Your task to perform on an android device: Open privacy settings Image 0: 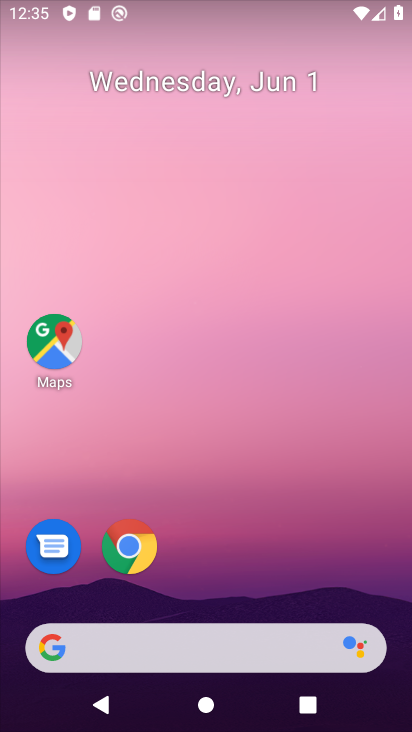
Step 0: drag from (280, 558) to (222, 127)
Your task to perform on an android device: Open privacy settings Image 1: 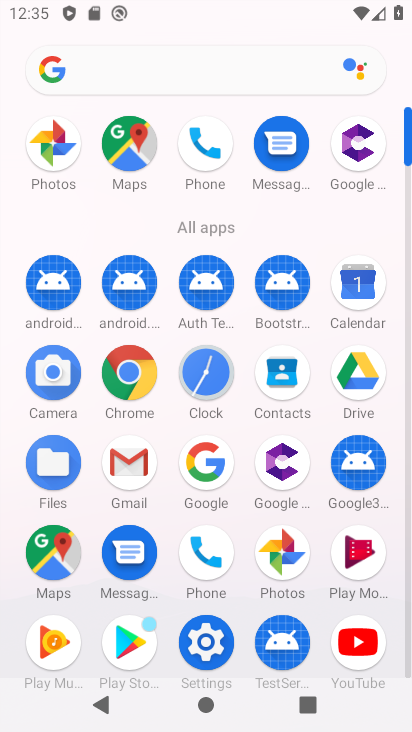
Step 1: click (207, 643)
Your task to perform on an android device: Open privacy settings Image 2: 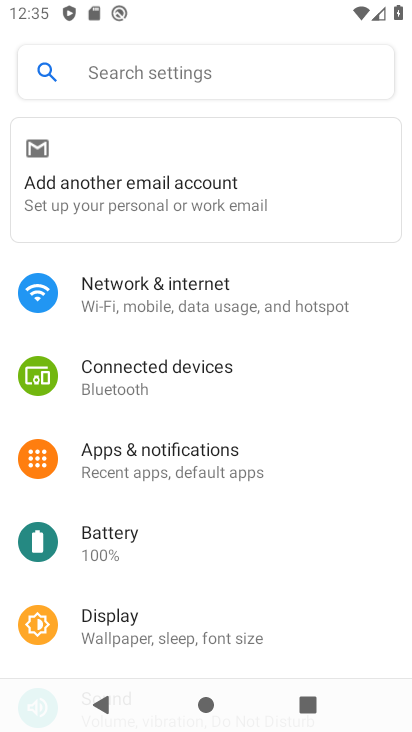
Step 2: drag from (263, 579) to (184, 209)
Your task to perform on an android device: Open privacy settings Image 3: 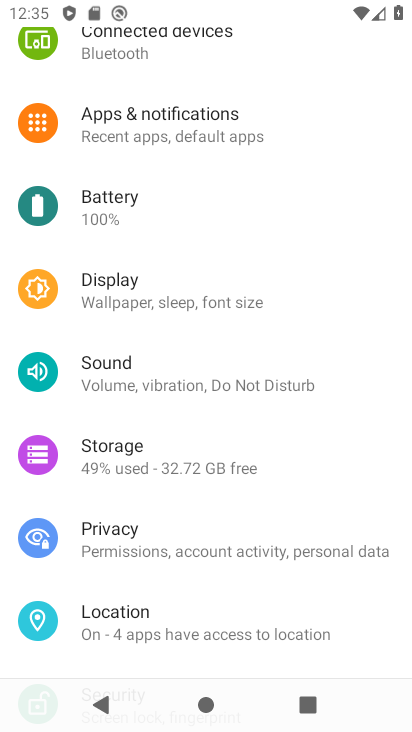
Step 3: click (137, 547)
Your task to perform on an android device: Open privacy settings Image 4: 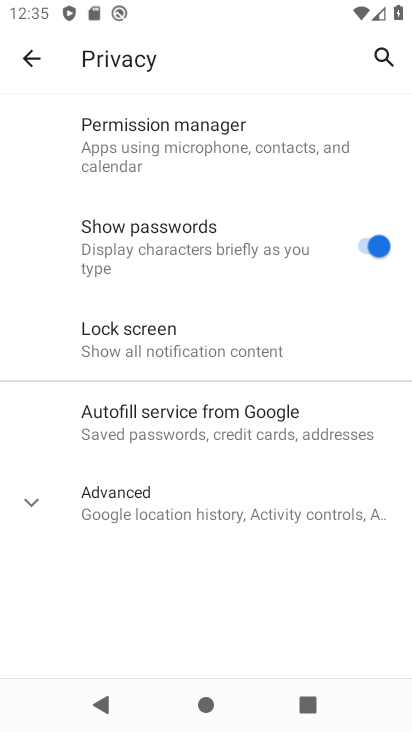
Step 4: task complete